Your task to perform on an android device: When is my next appointment? Image 0: 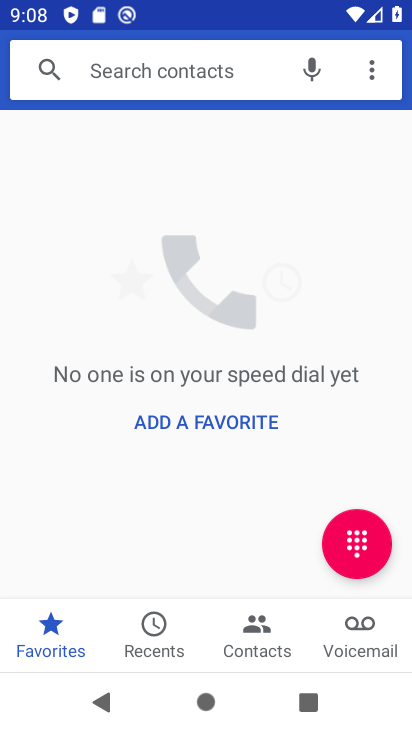
Step 0: press home button
Your task to perform on an android device: When is my next appointment? Image 1: 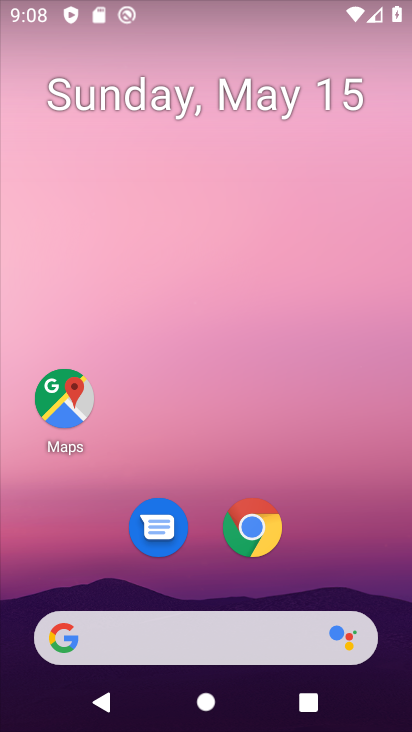
Step 1: drag from (384, 537) to (249, 187)
Your task to perform on an android device: When is my next appointment? Image 2: 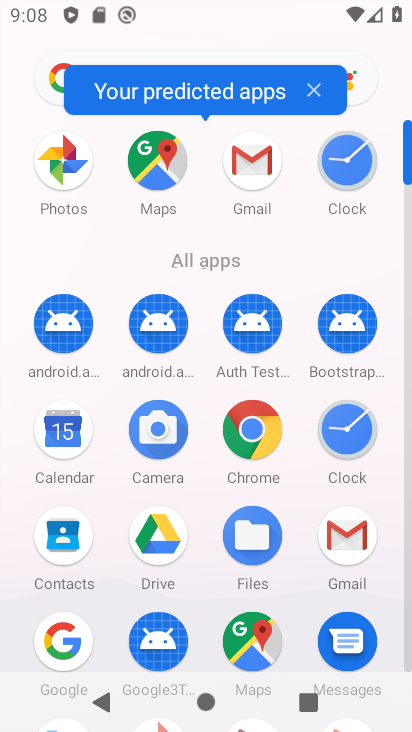
Step 2: click (68, 419)
Your task to perform on an android device: When is my next appointment? Image 3: 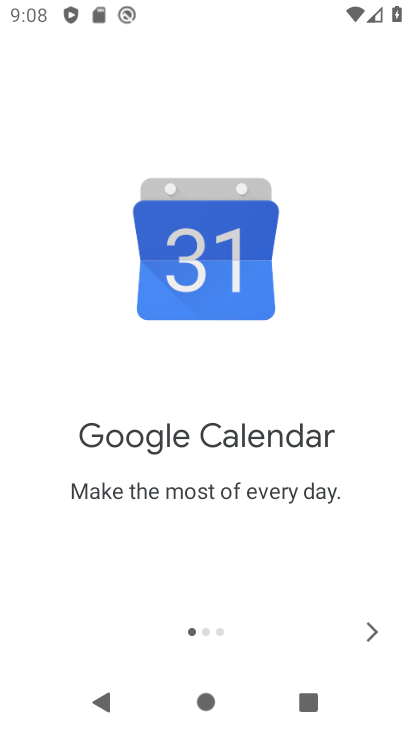
Step 3: click (368, 629)
Your task to perform on an android device: When is my next appointment? Image 4: 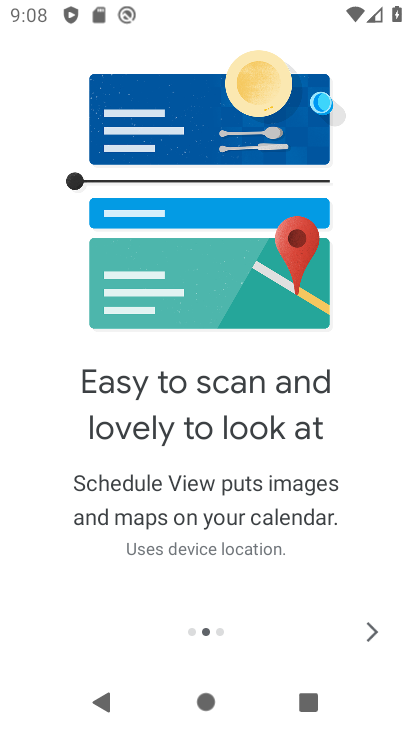
Step 4: click (368, 629)
Your task to perform on an android device: When is my next appointment? Image 5: 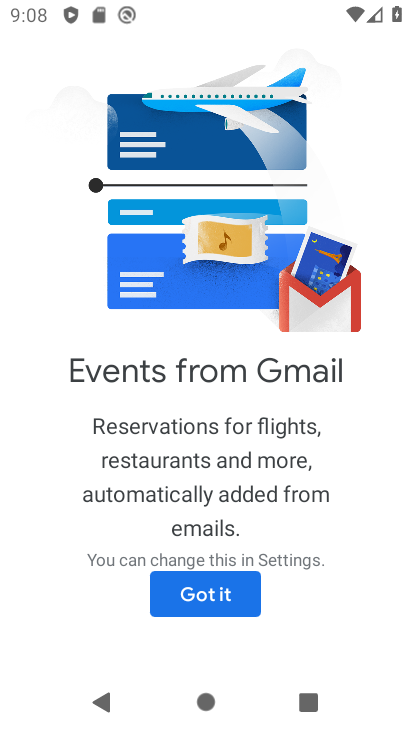
Step 5: click (214, 607)
Your task to perform on an android device: When is my next appointment? Image 6: 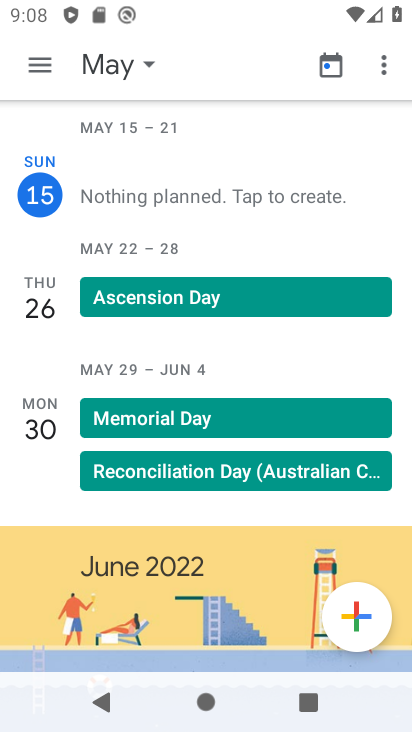
Step 6: click (47, 61)
Your task to perform on an android device: When is my next appointment? Image 7: 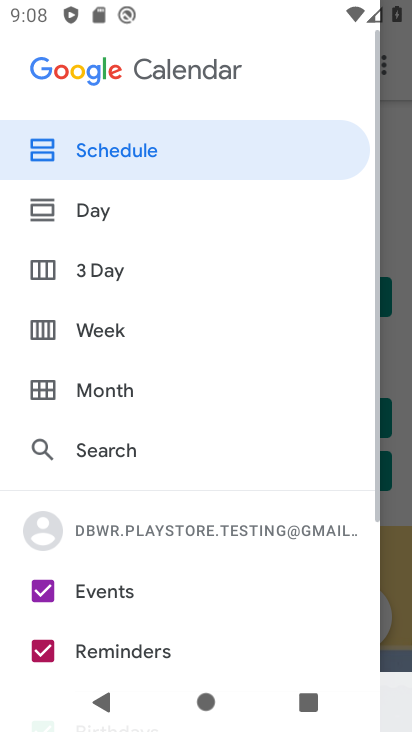
Step 7: click (96, 134)
Your task to perform on an android device: When is my next appointment? Image 8: 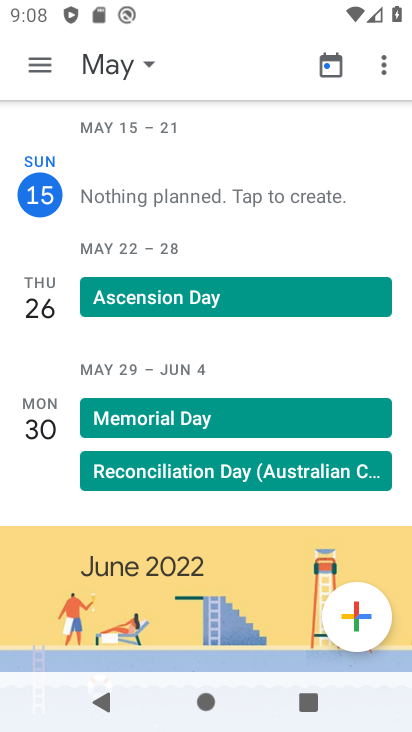
Step 8: click (102, 75)
Your task to perform on an android device: When is my next appointment? Image 9: 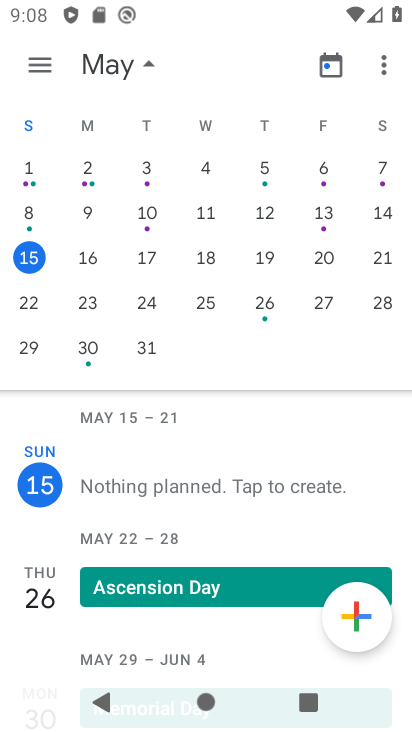
Step 9: click (88, 255)
Your task to perform on an android device: When is my next appointment? Image 10: 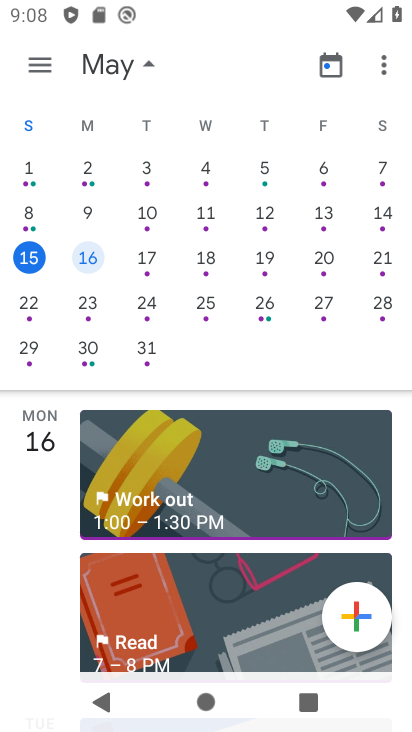
Step 10: click (112, 67)
Your task to perform on an android device: When is my next appointment? Image 11: 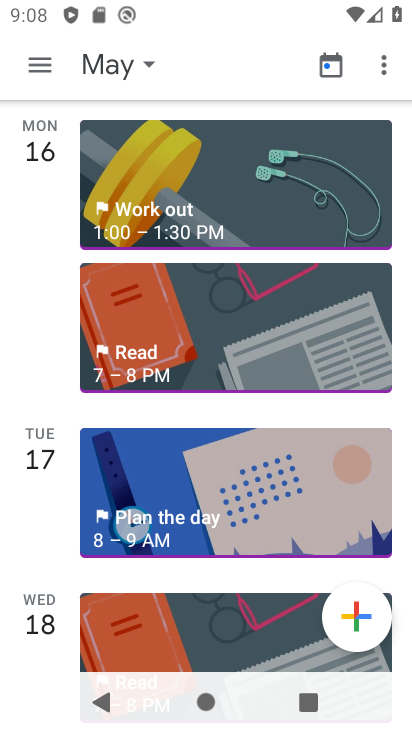
Step 11: task complete